Your task to perform on an android device: turn off wifi Image 0: 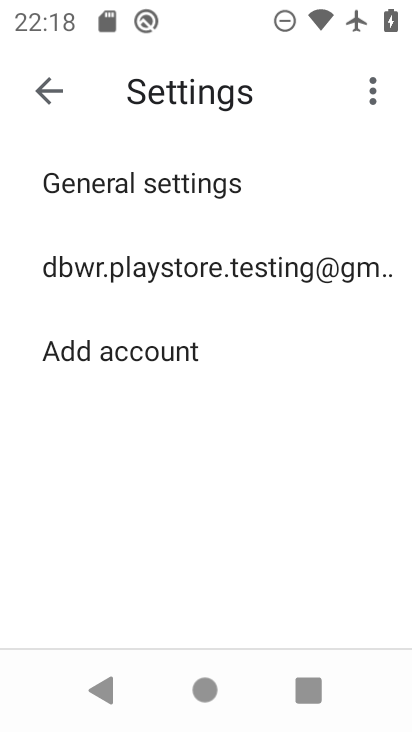
Step 0: press home button
Your task to perform on an android device: turn off wifi Image 1: 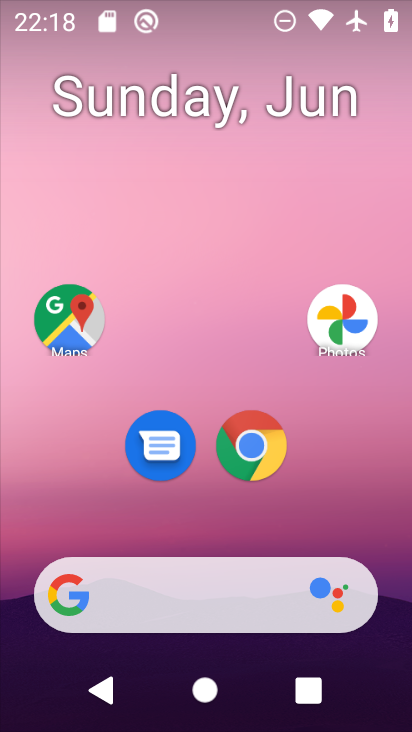
Step 1: drag from (183, 14) to (231, 510)
Your task to perform on an android device: turn off wifi Image 2: 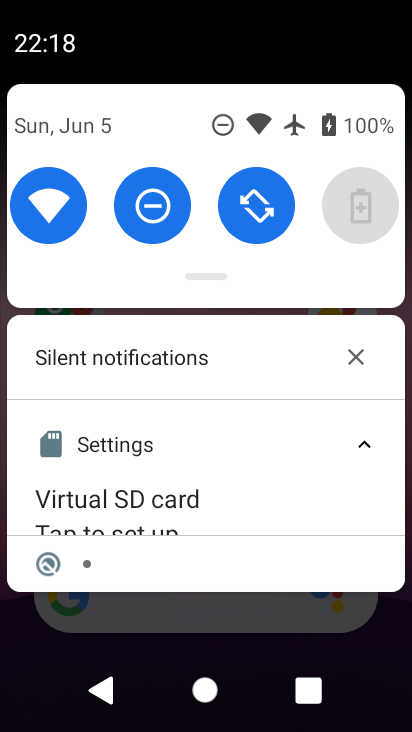
Step 2: click (46, 207)
Your task to perform on an android device: turn off wifi Image 3: 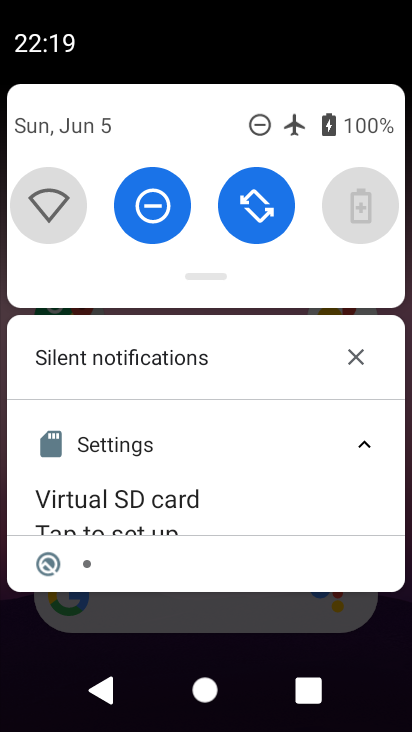
Step 3: task complete